Your task to perform on an android device: Go to sound settings Image 0: 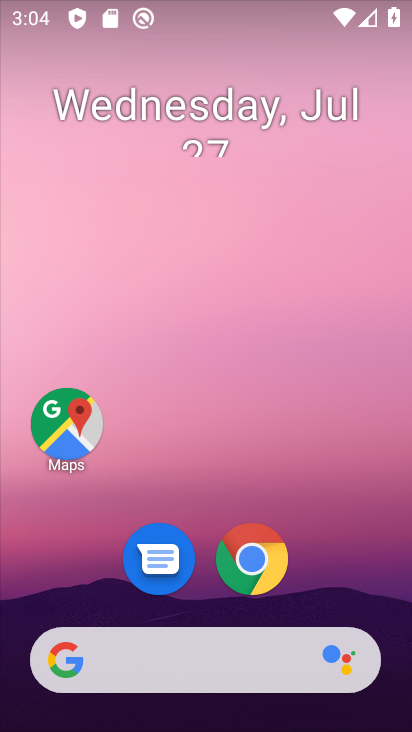
Step 0: drag from (93, 611) to (300, 8)
Your task to perform on an android device: Go to sound settings Image 1: 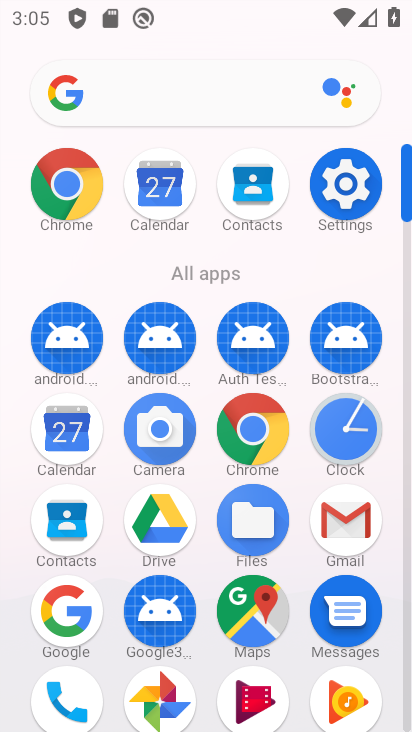
Step 1: click (345, 186)
Your task to perform on an android device: Go to sound settings Image 2: 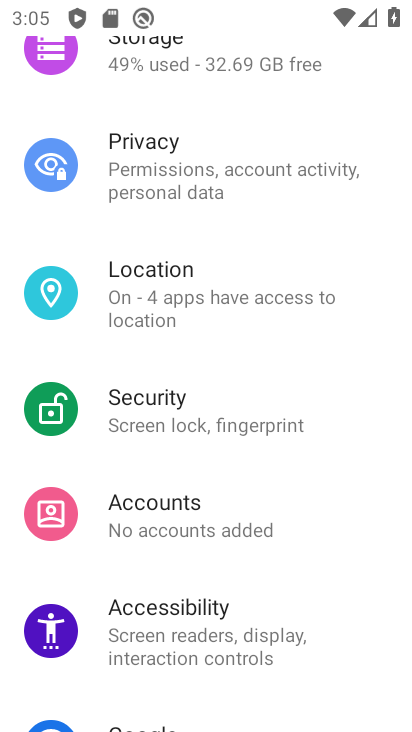
Step 2: drag from (206, 182) to (192, 687)
Your task to perform on an android device: Go to sound settings Image 3: 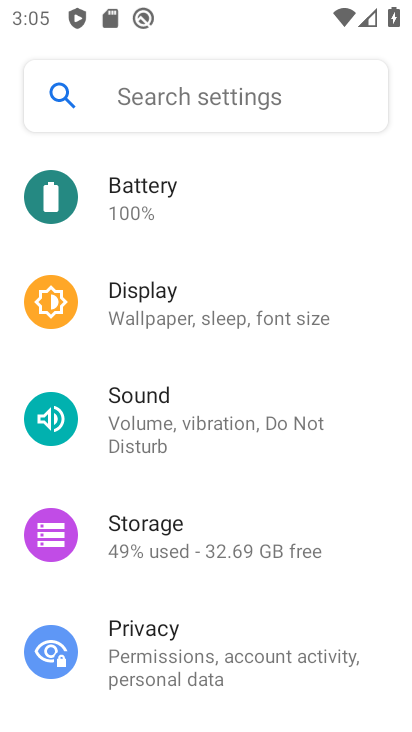
Step 3: click (153, 386)
Your task to perform on an android device: Go to sound settings Image 4: 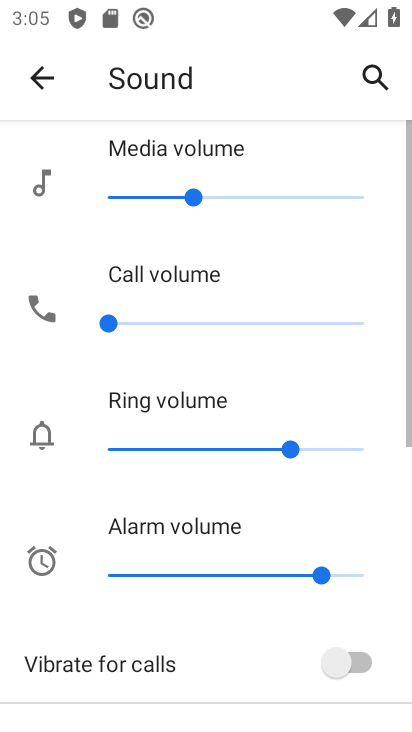
Step 4: task complete